Your task to perform on an android device: make emails show in primary in the gmail app Image 0: 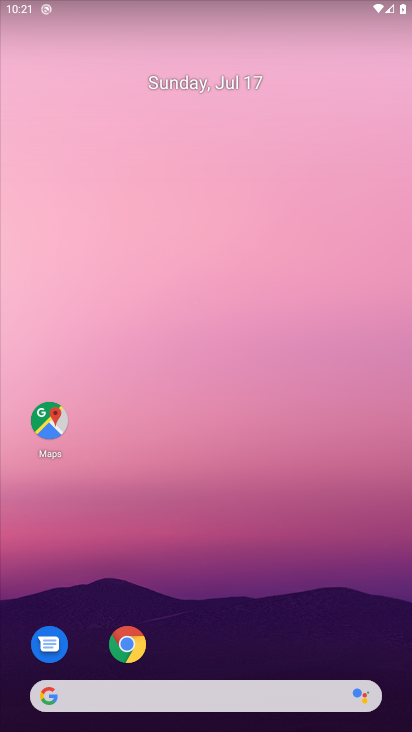
Step 0: drag from (291, 653) to (242, 163)
Your task to perform on an android device: make emails show in primary in the gmail app Image 1: 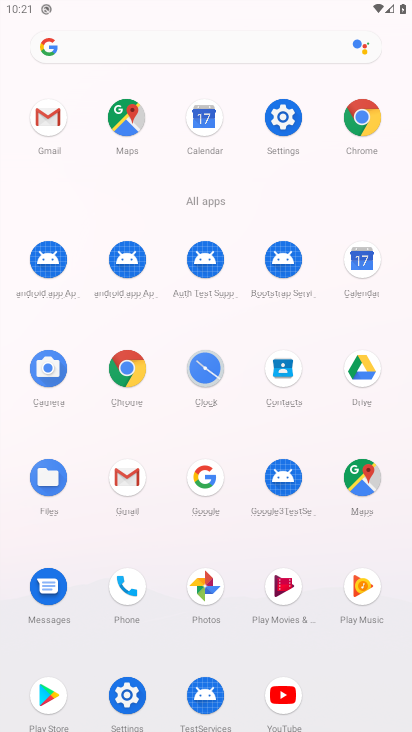
Step 1: click (42, 121)
Your task to perform on an android device: make emails show in primary in the gmail app Image 2: 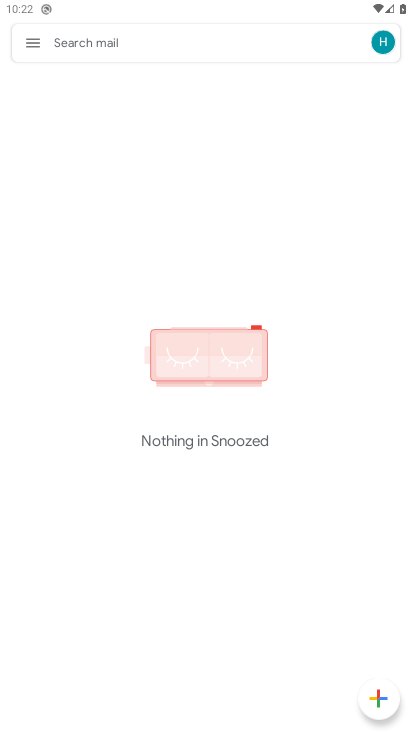
Step 2: click (27, 39)
Your task to perform on an android device: make emails show in primary in the gmail app Image 3: 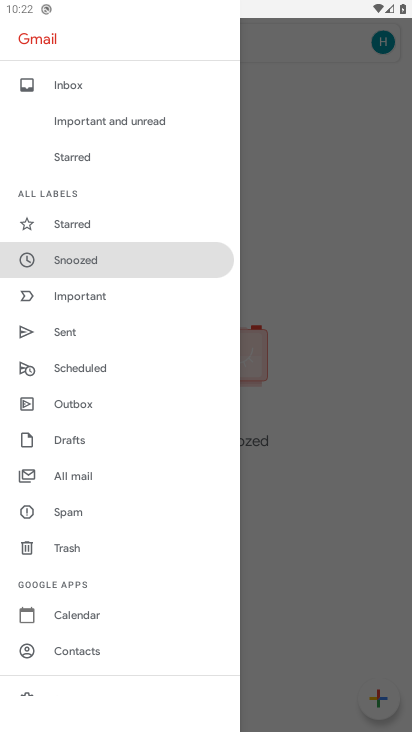
Step 3: drag from (78, 675) to (77, 408)
Your task to perform on an android device: make emails show in primary in the gmail app Image 4: 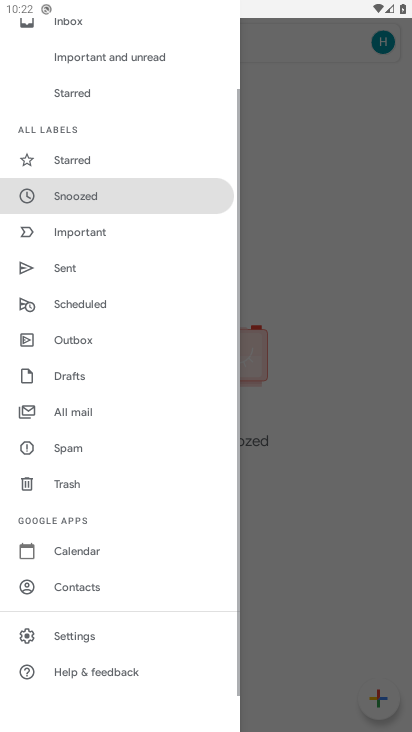
Step 4: click (55, 633)
Your task to perform on an android device: make emails show in primary in the gmail app Image 5: 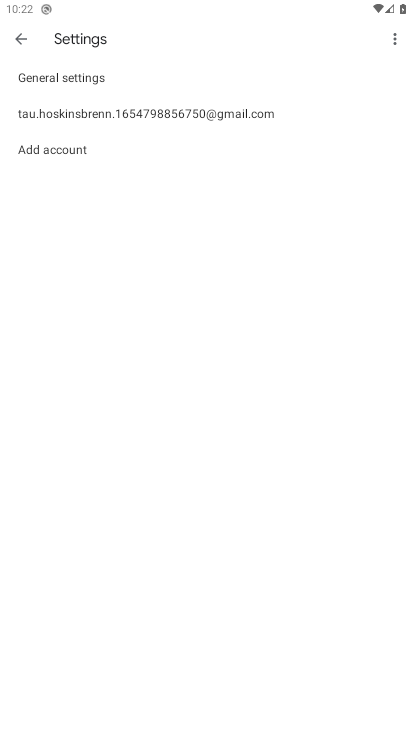
Step 5: click (113, 112)
Your task to perform on an android device: make emails show in primary in the gmail app Image 6: 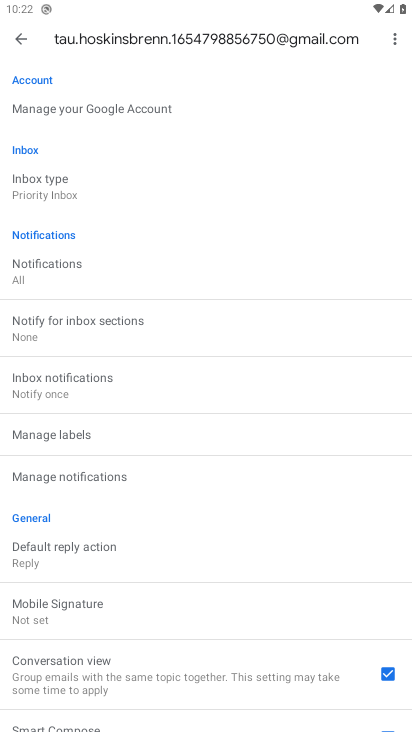
Step 6: click (36, 180)
Your task to perform on an android device: make emails show in primary in the gmail app Image 7: 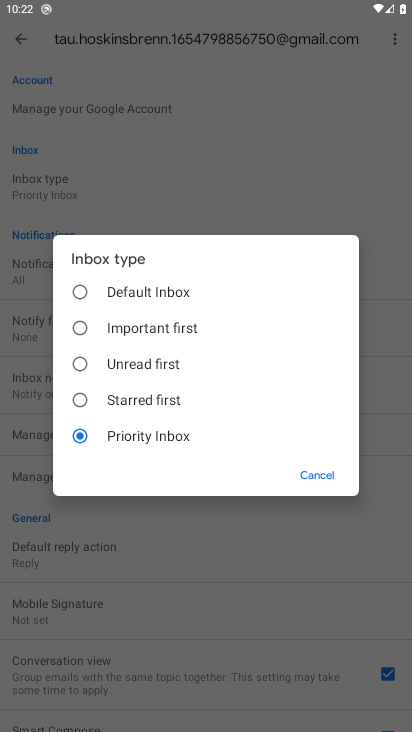
Step 7: click (75, 285)
Your task to perform on an android device: make emails show in primary in the gmail app Image 8: 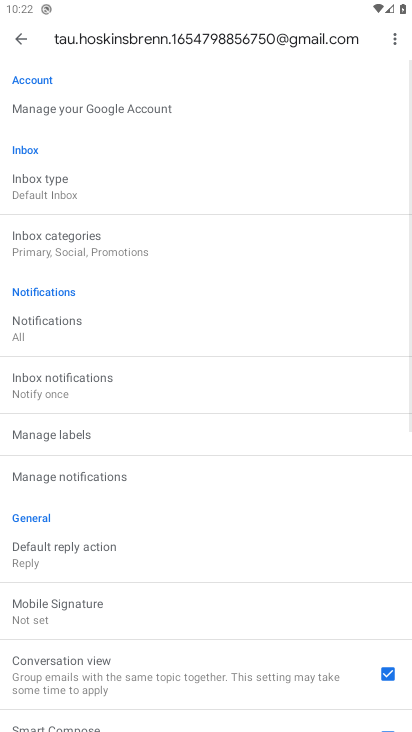
Step 8: click (46, 243)
Your task to perform on an android device: make emails show in primary in the gmail app Image 9: 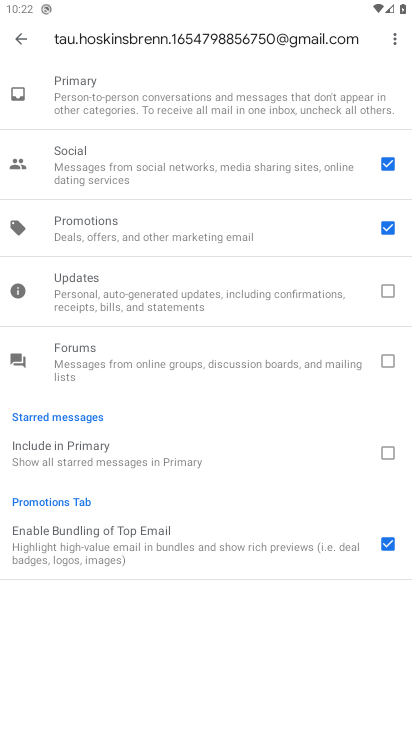
Step 9: click (380, 226)
Your task to perform on an android device: make emails show in primary in the gmail app Image 10: 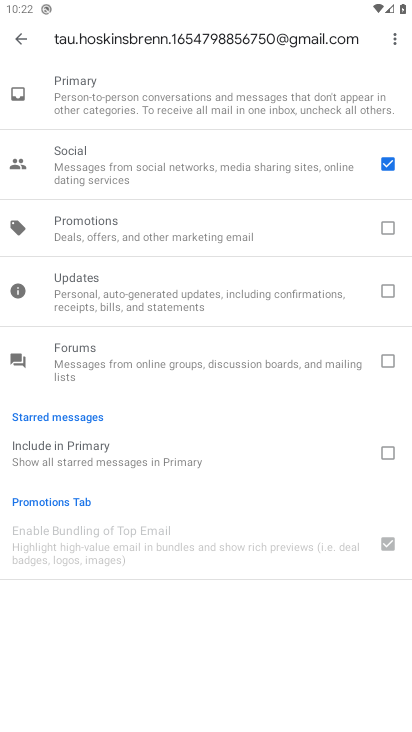
Step 10: click (384, 161)
Your task to perform on an android device: make emails show in primary in the gmail app Image 11: 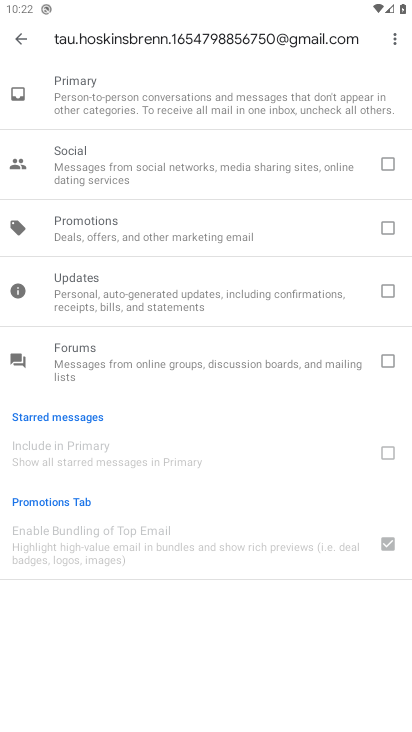
Step 11: task complete